Your task to perform on an android device: turn off notifications settings in the gmail app Image 0: 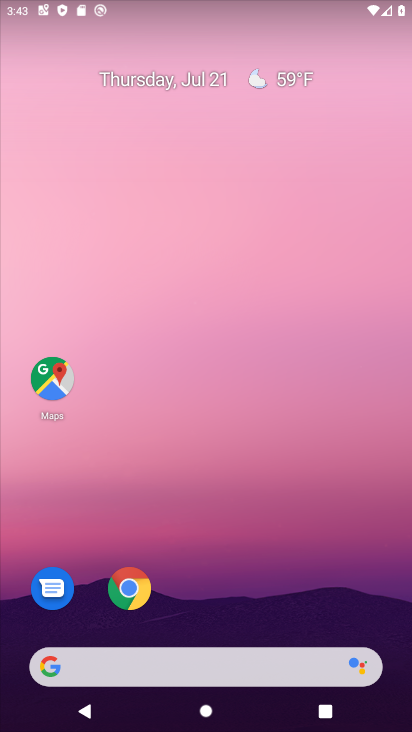
Step 0: drag from (190, 575) to (195, 202)
Your task to perform on an android device: turn off notifications settings in the gmail app Image 1: 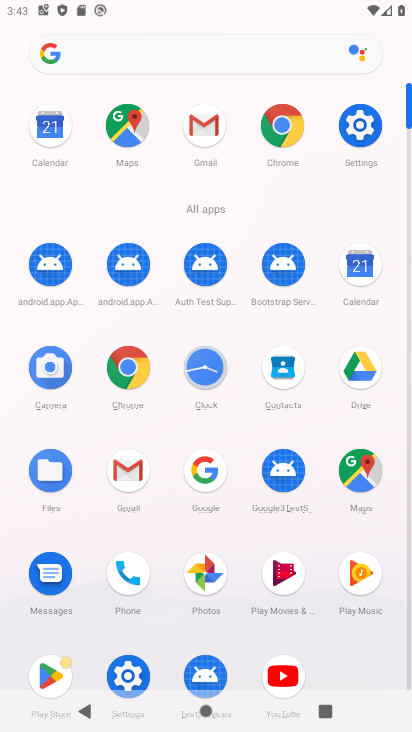
Step 1: click (133, 485)
Your task to perform on an android device: turn off notifications settings in the gmail app Image 2: 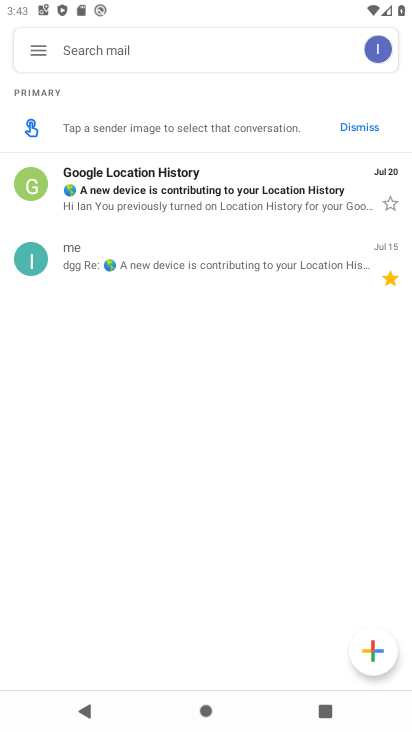
Step 2: click (40, 52)
Your task to perform on an android device: turn off notifications settings in the gmail app Image 3: 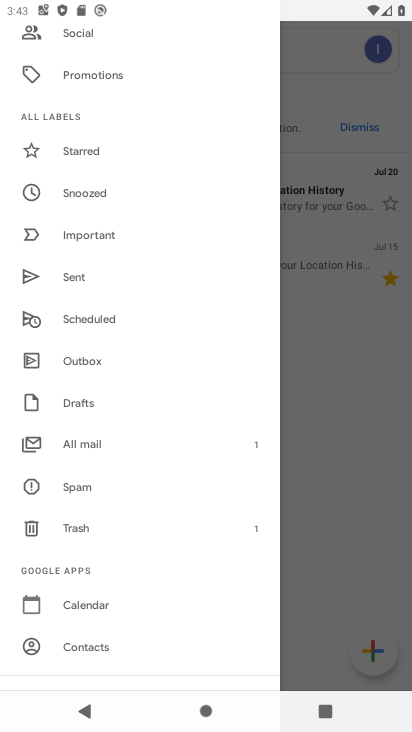
Step 3: drag from (96, 587) to (97, 278)
Your task to perform on an android device: turn off notifications settings in the gmail app Image 4: 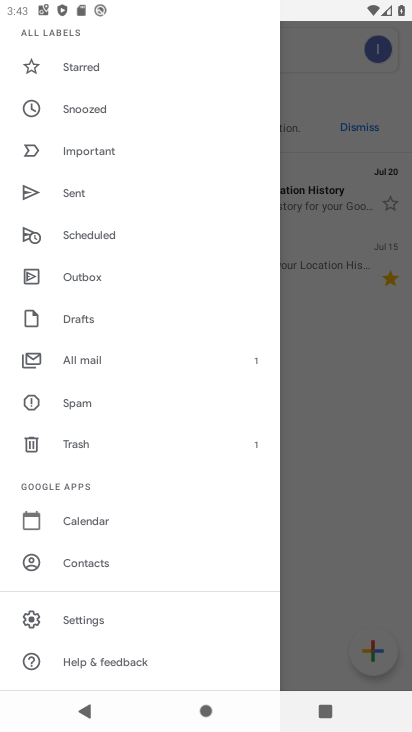
Step 4: click (83, 613)
Your task to perform on an android device: turn off notifications settings in the gmail app Image 5: 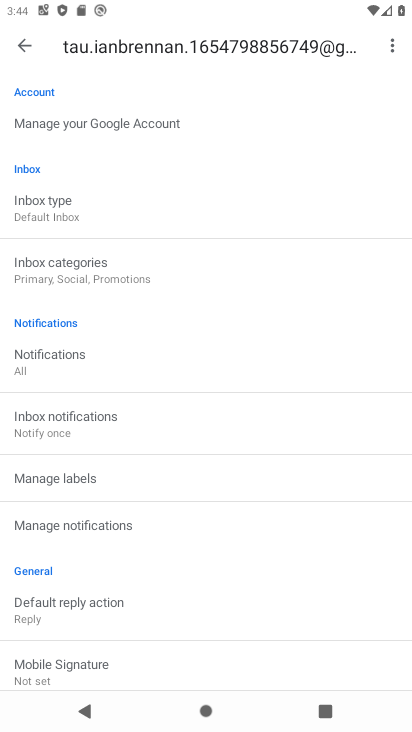
Step 5: click (22, 40)
Your task to perform on an android device: turn off notifications settings in the gmail app Image 6: 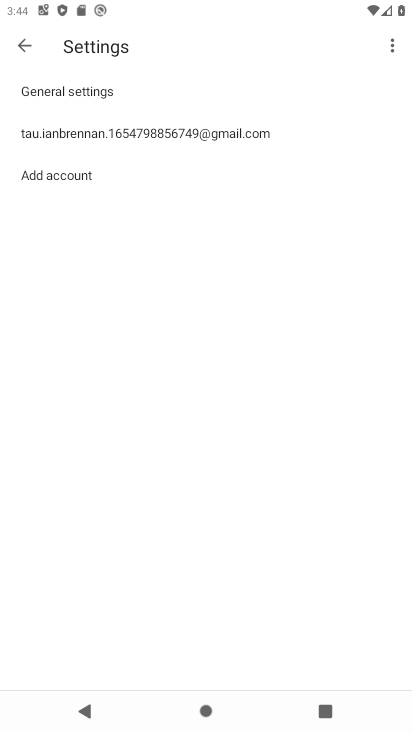
Step 6: click (84, 94)
Your task to perform on an android device: turn off notifications settings in the gmail app Image 7: 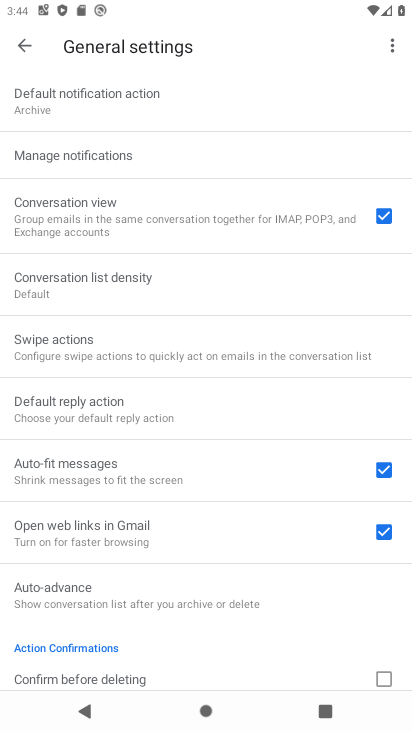
Step 7: click (95, 158)
Your task to perform on an android device: turn off notifications settings in the gmail app Image 8: 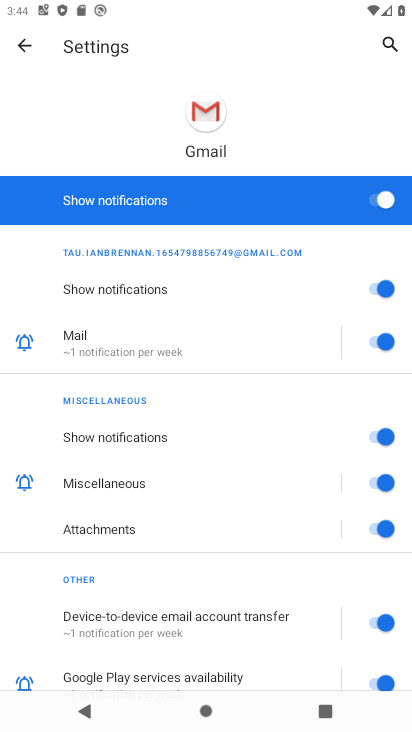
Step 8: click (354, 188)
Your task to perform on an android device: turn off notifications settings in the gmail app Image 9: 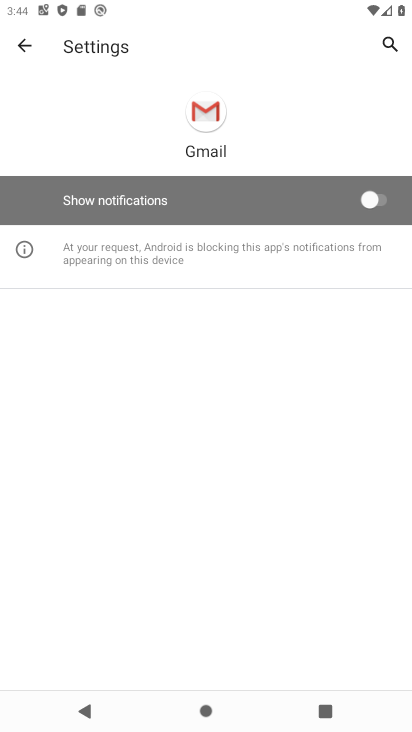
Step 9: task complete